Your task to perform on an android device: Open notification settings Image 0: 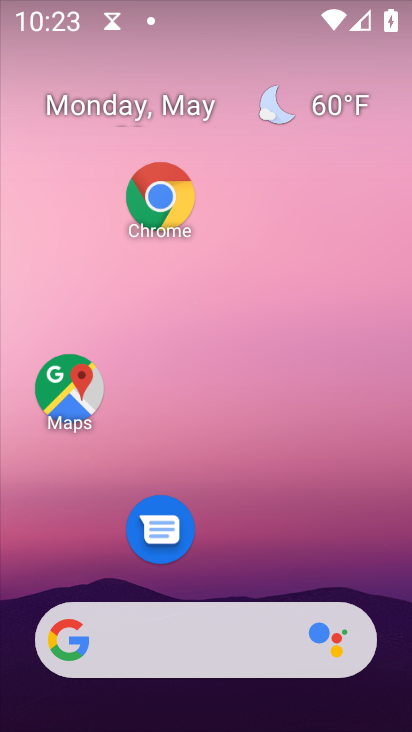
Step 0: drag from (237, 390) to (121, 0)
Your task to perform on an android device: Open notification settings Image 1: 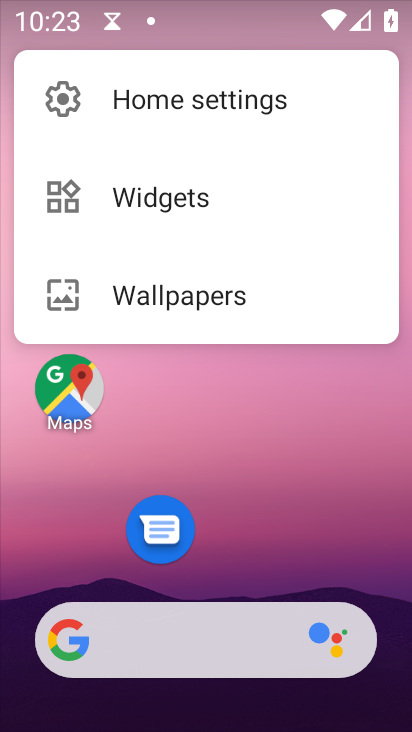
Step 1: click (240, 493)
Your task to perform on an android device: Open notification settings Image 2: 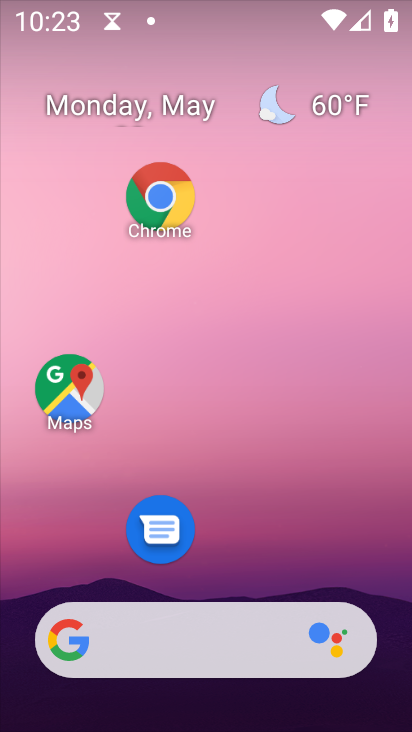
Step 2: drag from (238, 511) to (303, 15)
Your task to perform on an android device: Open notification settings Image 3: 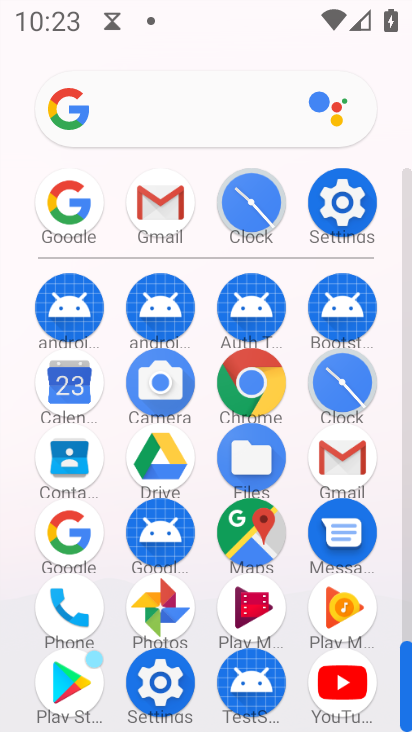
Step 3: click (346, 251)
Your task to perform on an android device: Open notification settings Image 4: 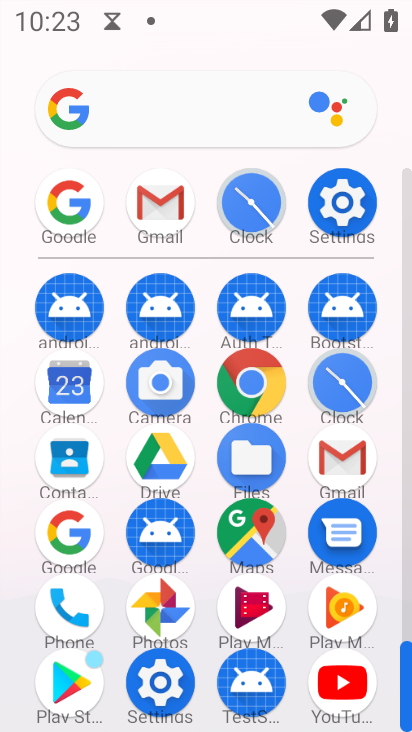
Step 4: click (342, 222)
Your task to perform on an android device: Open notification settings Image 5: 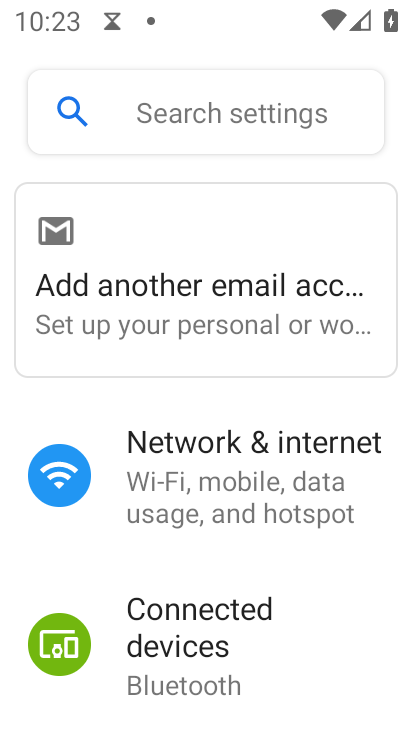
Step 5: drag from (202, 625) to (196, 197)
Your task to perform on an android device: Open notification settings Image 6: 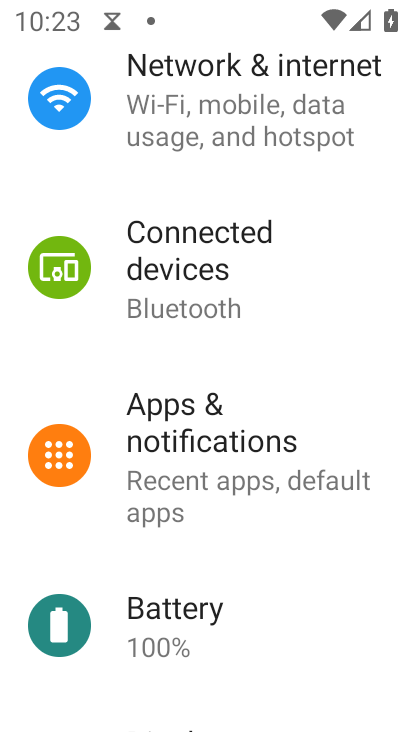
Step 6: click (174, 449)
Your task to perform on an android device: Open notification settings Image 7: 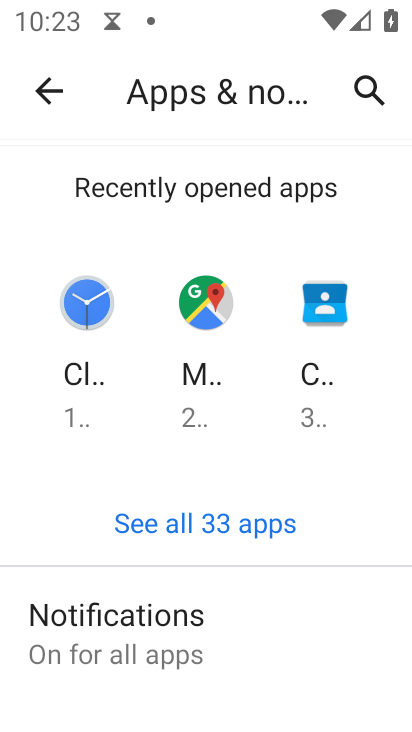
Step 7: drag from (256, 630) to (202, 176)
Your task to perform on an android device: Open notification settings Image 8: 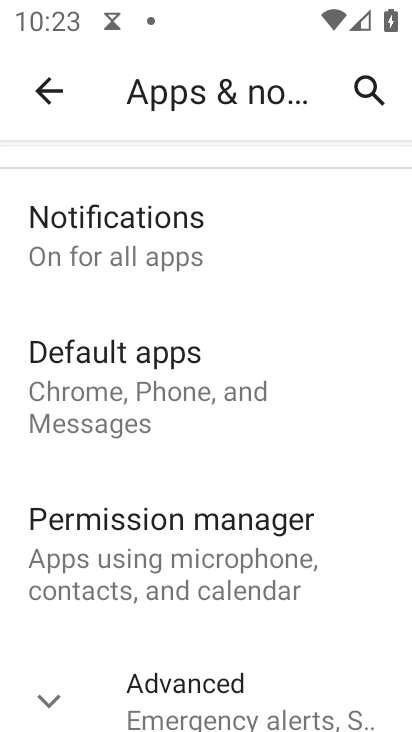
Step 8: click (138, 237)
Your task to perform on an android device: Open notification settings Image 9: 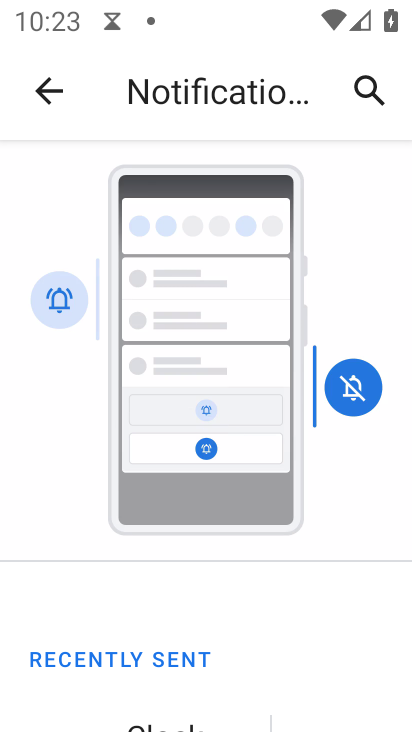
Step 9: drag from (215, 655) to (153, 129)
Your task to perform on an android device: Open notification settings Image 10: 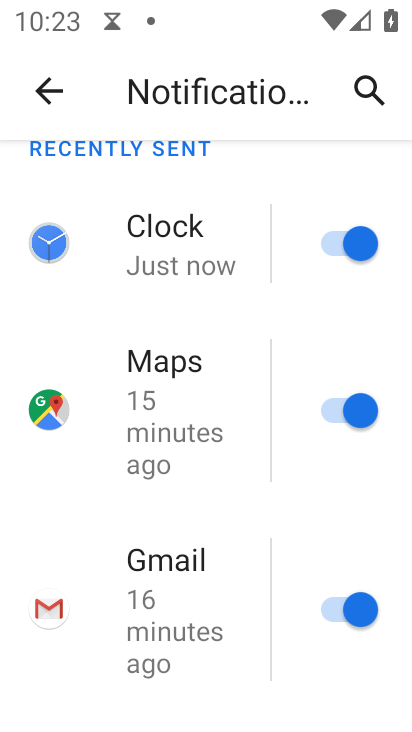
Step 10: click (140, 193)
Your task to perform on an android device: Open notification settings Image 11: 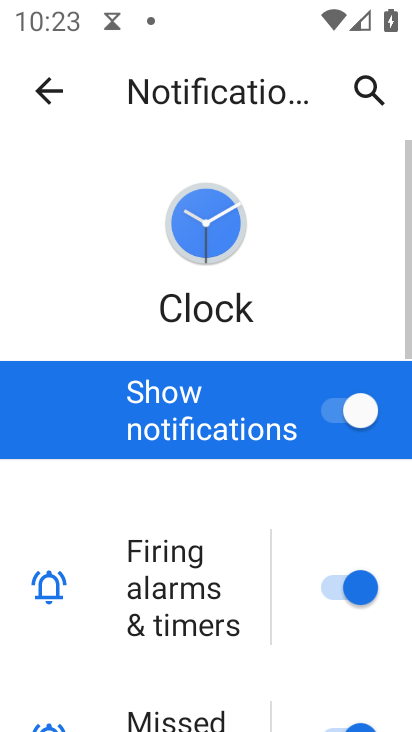
Step 11: click (35, 100)
Your task to perform on an android device: Open notification settings Image 12: 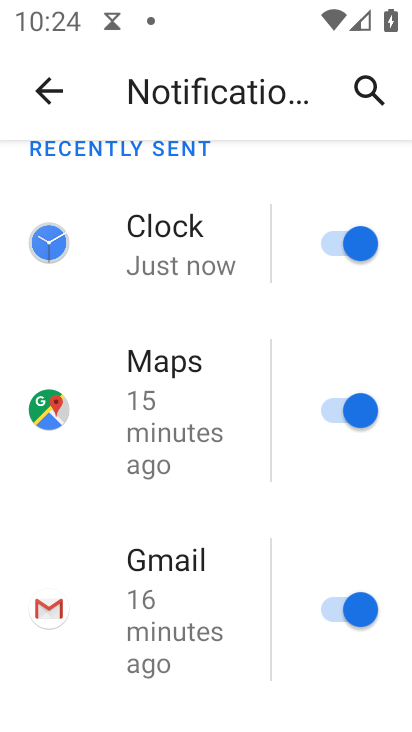
Step 12: drag from (217, 612) to (185, 214)
Your task to perform on an android device: Open notification settings Image 13: 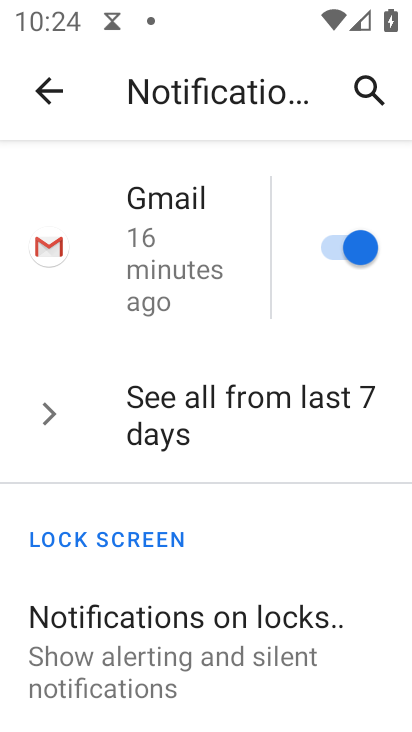
Step 13: drag from (205, 539) to (186, 283)
Your task to perform on an android device: Open notification settings Image 14: 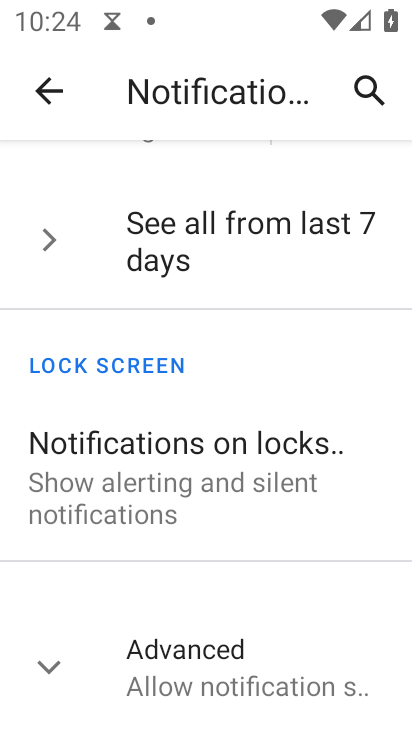
Step 14: click (162, 497)
Your task to perform on an android device: Open notification settings Image 15: 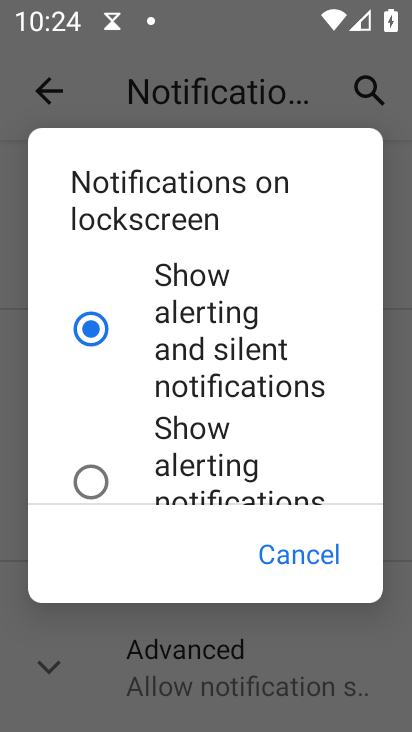
Step 15: task complete